Your task to perform on an android device: toggle airplane mode Image 0: 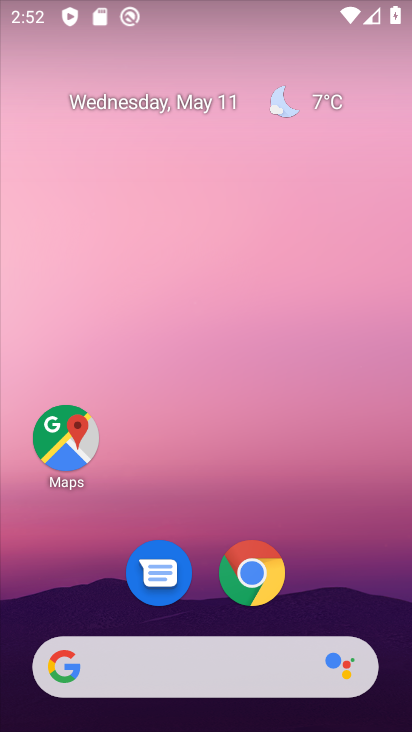
Step 0: drag from (188, 659) to (187, 123)
Your task to perform on an android device: toggle airplane mode Image 1: 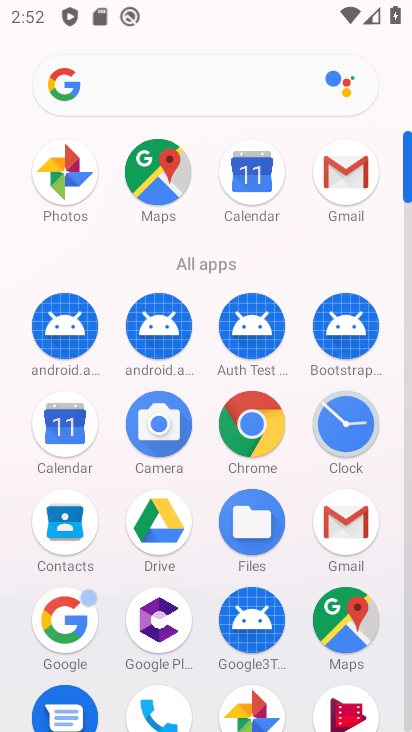
Step 1: drag from (252, 673) to (232, 212)
Your task to perform on an android device: toggle airplane mode Image 2: 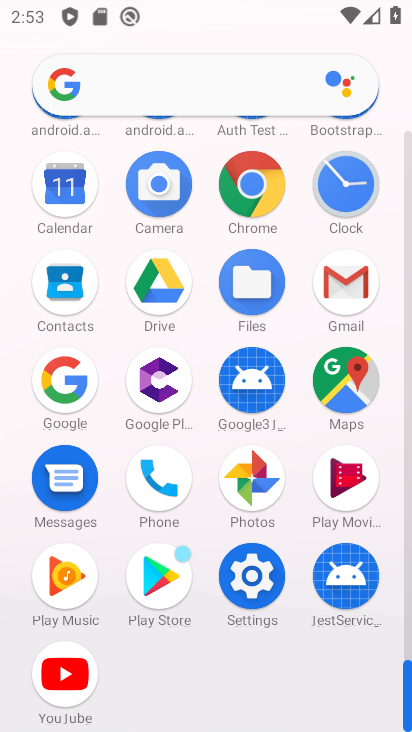
Step 2: click (256, 584)
Your task to perform on an android device: toggle airplane mode Image 3: 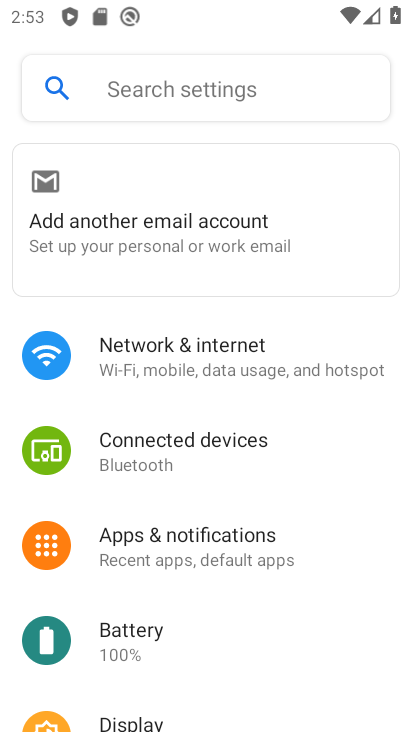
Step 3: click (234, 361)
Your task to perform on an android device: toggle airplane mode Image 4: 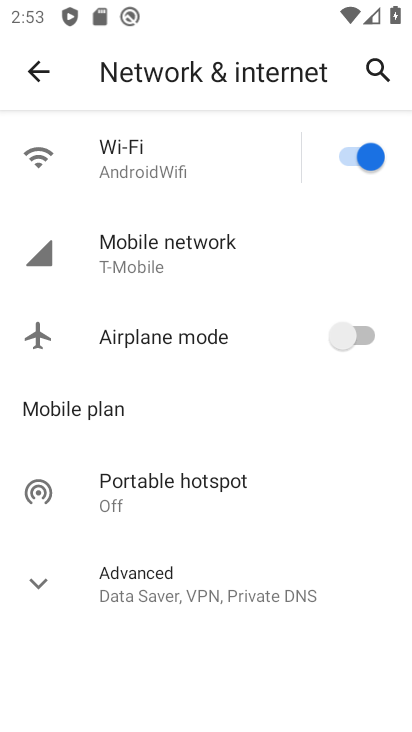
Step 4: click (363, 322)
Your task to perform on an android device: toggle airplane mode Image 5: 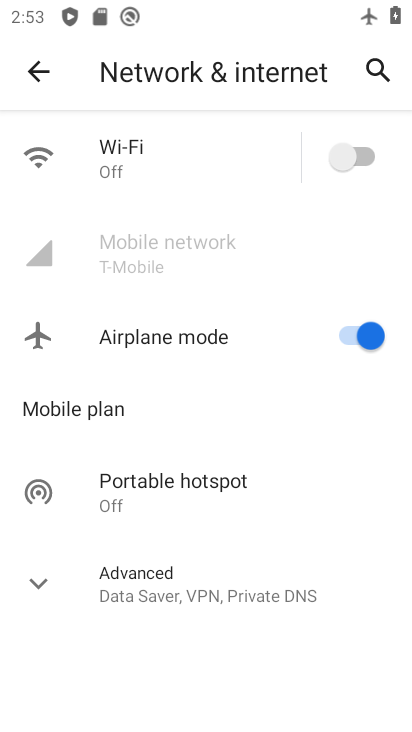
Step 5: task complete